Your task to perform on an android device: What is the recent news? Image 0: 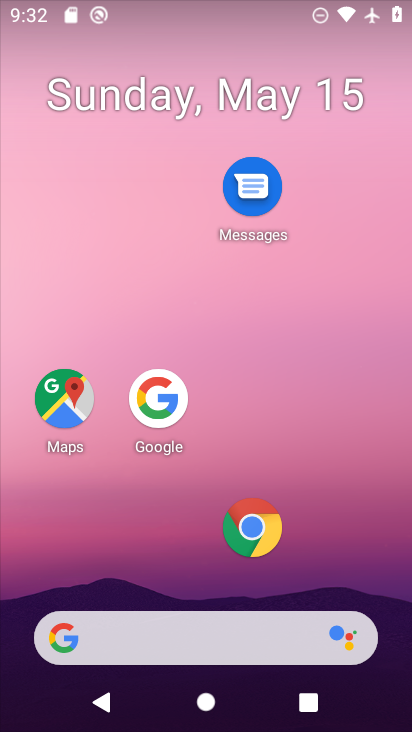
Step 0: press home button
Your task to perform on an android device: What is the recent news? Image 1: 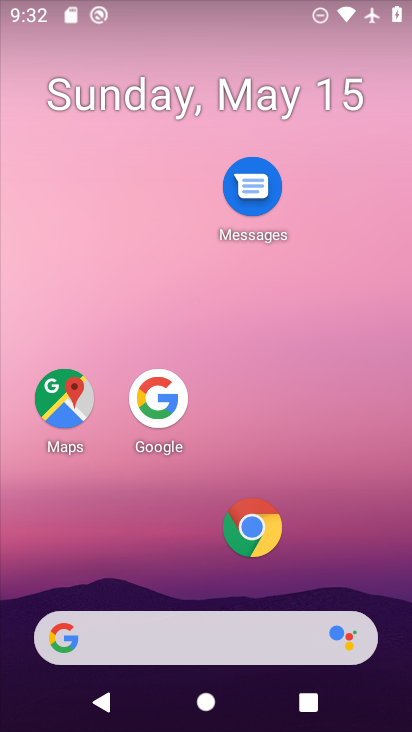
Step 1: click (74, 647)
Your task to perform on an android device: What is the recent news? Image 2: 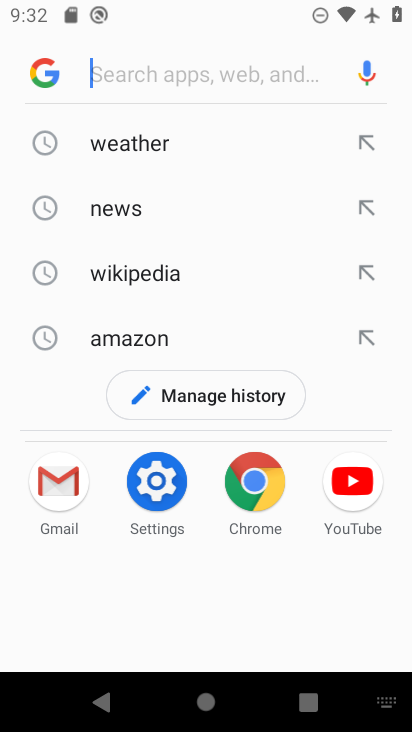
Step 2: click (139, 203)
Your task to perform on an android device: What is the recent news? Image 3: 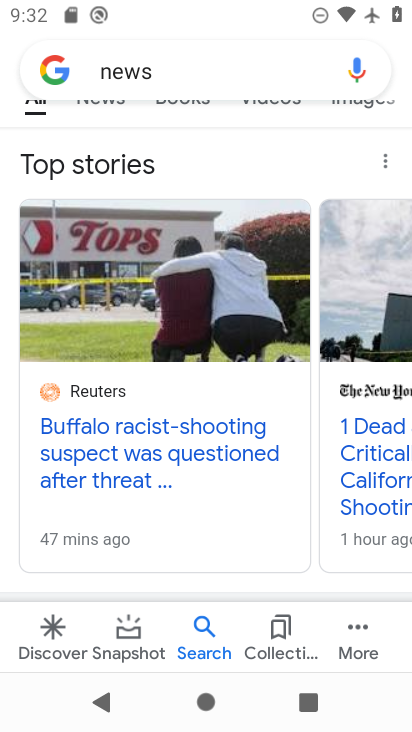
Step 3: drag from (201, 174) to (234, 626)
Your task to perform on an android device: What is the recent news? Image 4: 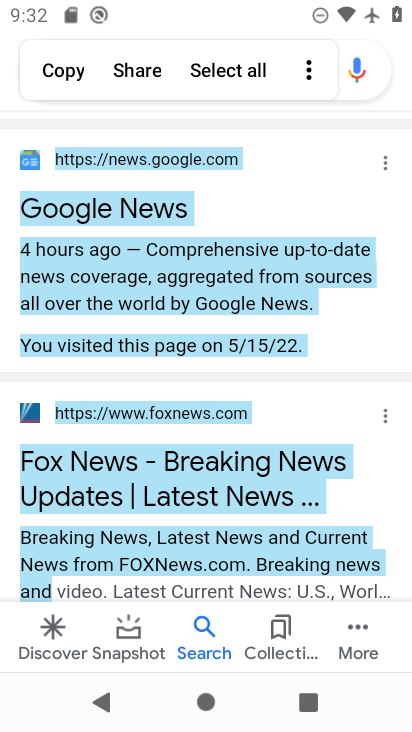
Step 4: drag from (321, 164) to (288, 655)
Your task to perform on an android device: What is the recent news? Image 5: 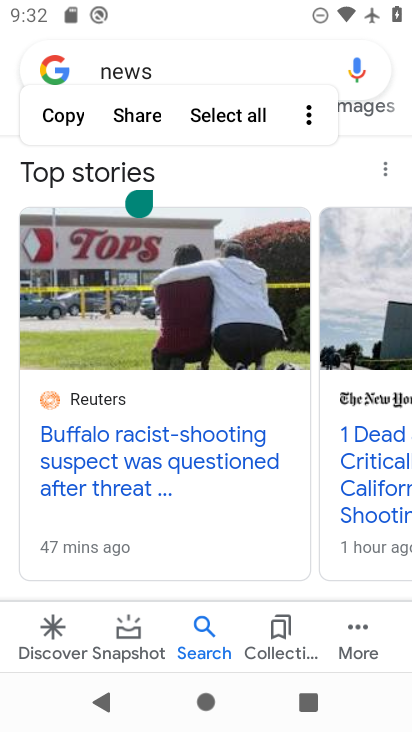
Step 5: drag from (310, 186) to (258, 617)
Your task to perform on an android device: What is the recent news? Image 6: 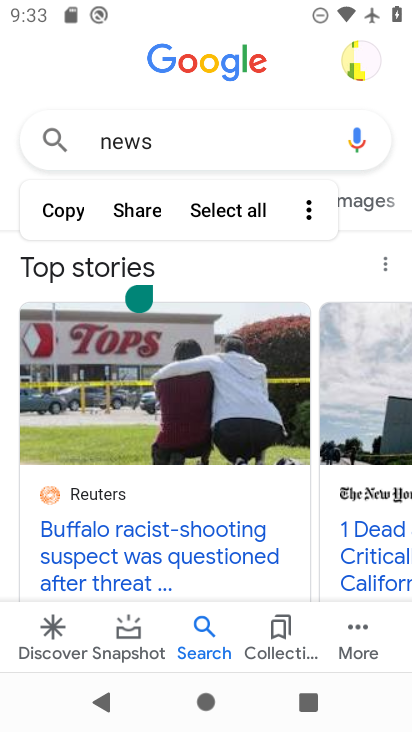
Step 6: click (82, 202)
Your task to perform on an android device: What is the recent news? Image 7: 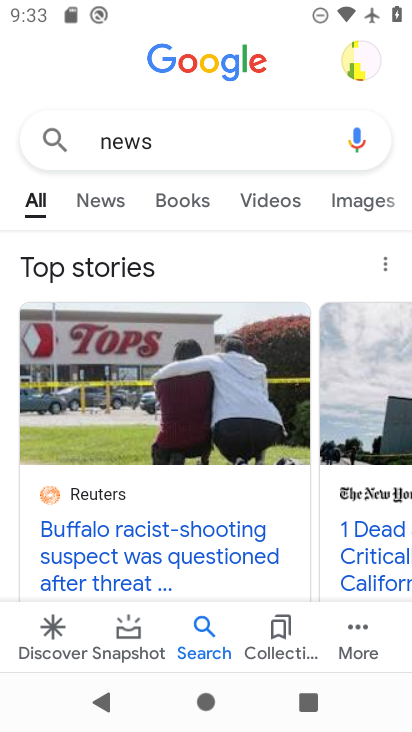
Step 7: click (81, 201)
Your task to perform on an android device: What is the recent news? Image 8: 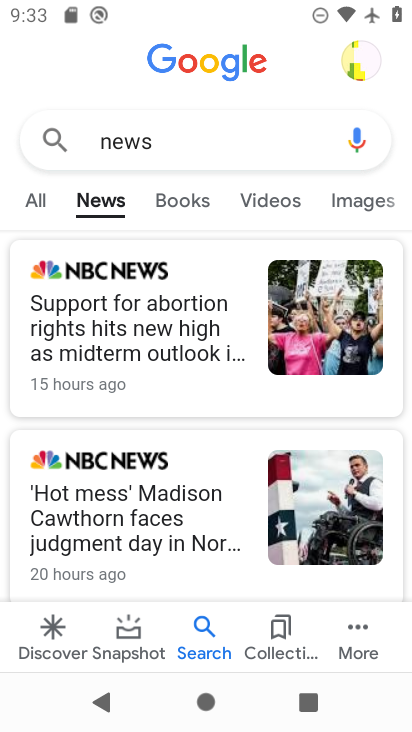
Step 8: task complete